Your task to perform on an android device: turn notification dots off Image 0: 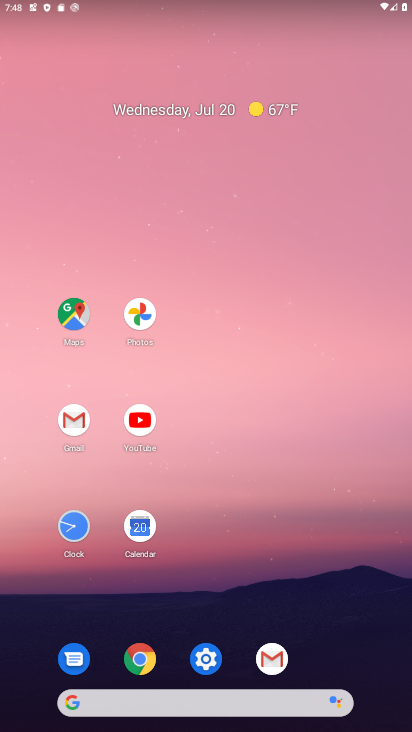
Step 0: click (204, 653)
Your task to perform on an android device: turn notification dots off Image 1: 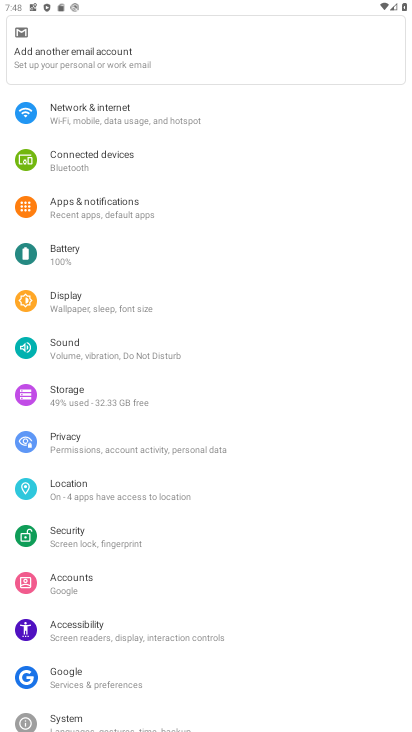
Step 1: click (71, 203)
Your task to perform on an android device: turn notification dots off Image 2: 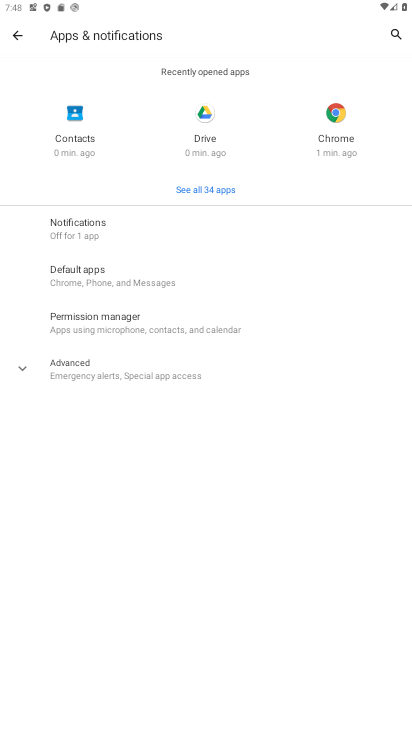
Step 2: click (92, 217)
Your task to perform on an android device: turn notification dots off Image 3: 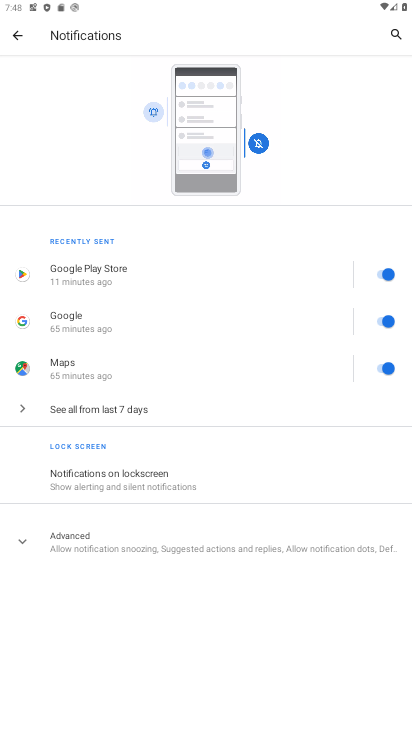
Step 3: click (20, 540)
Your task to perform on an android device: turn notification dots off Image 4: 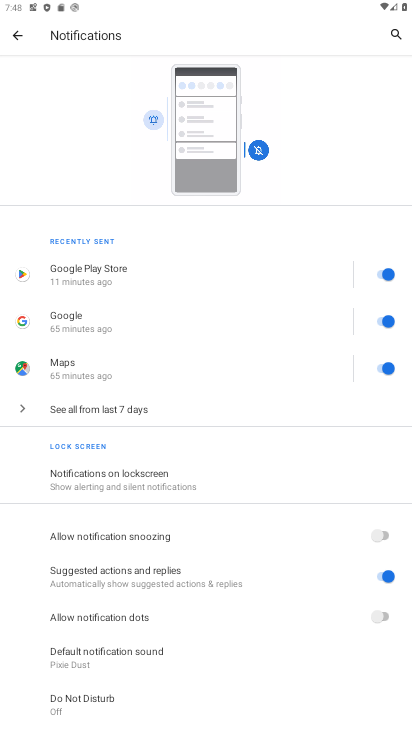
Step 4: task complete